Your task to perform on an android device: Show the shopping cart on target. Search for bose soundlink on target, select the first entry, add it to the cart, then select checkout. Image 0: 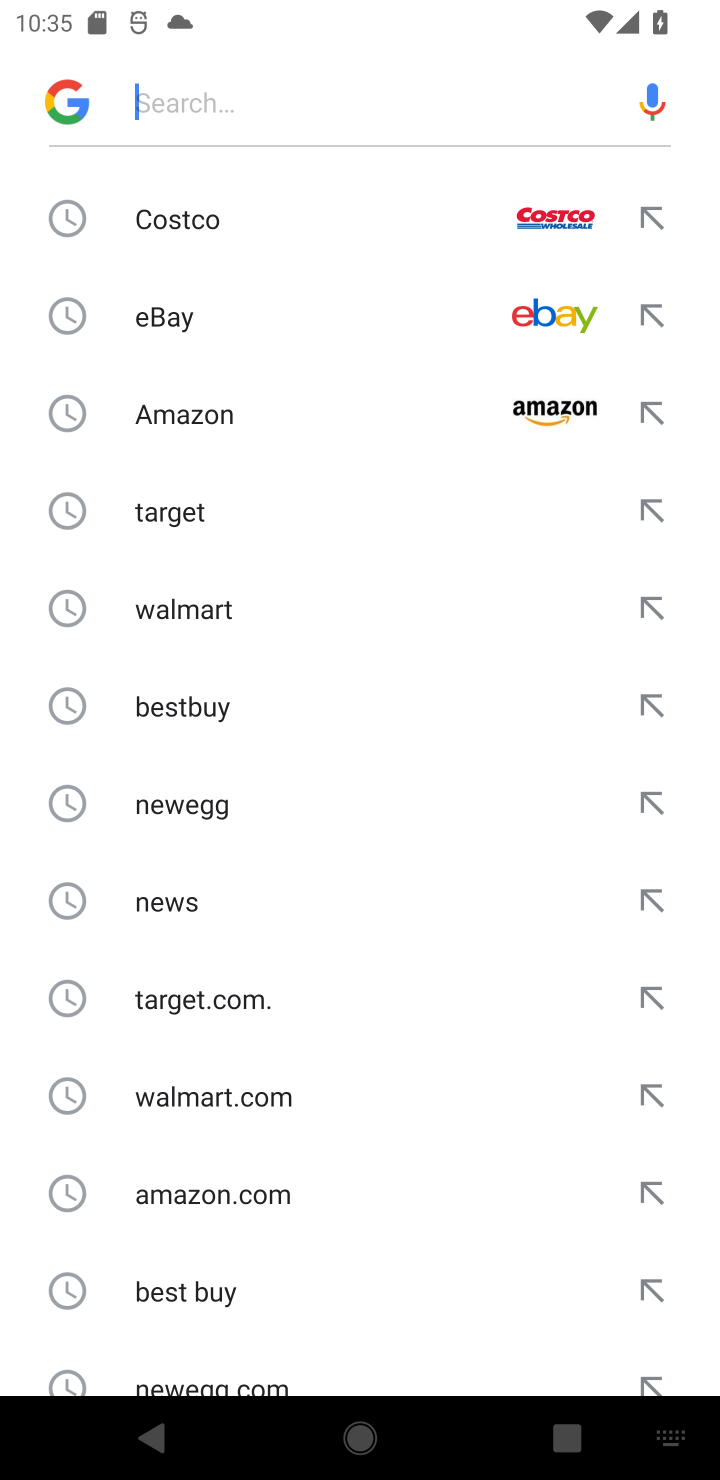
Step 0: press home button
Your task to perform on an android device: Show the shopping cart on target. Search for bose soundlink on target, select the first entry, add it to the cart, then select checkout. Image 1: 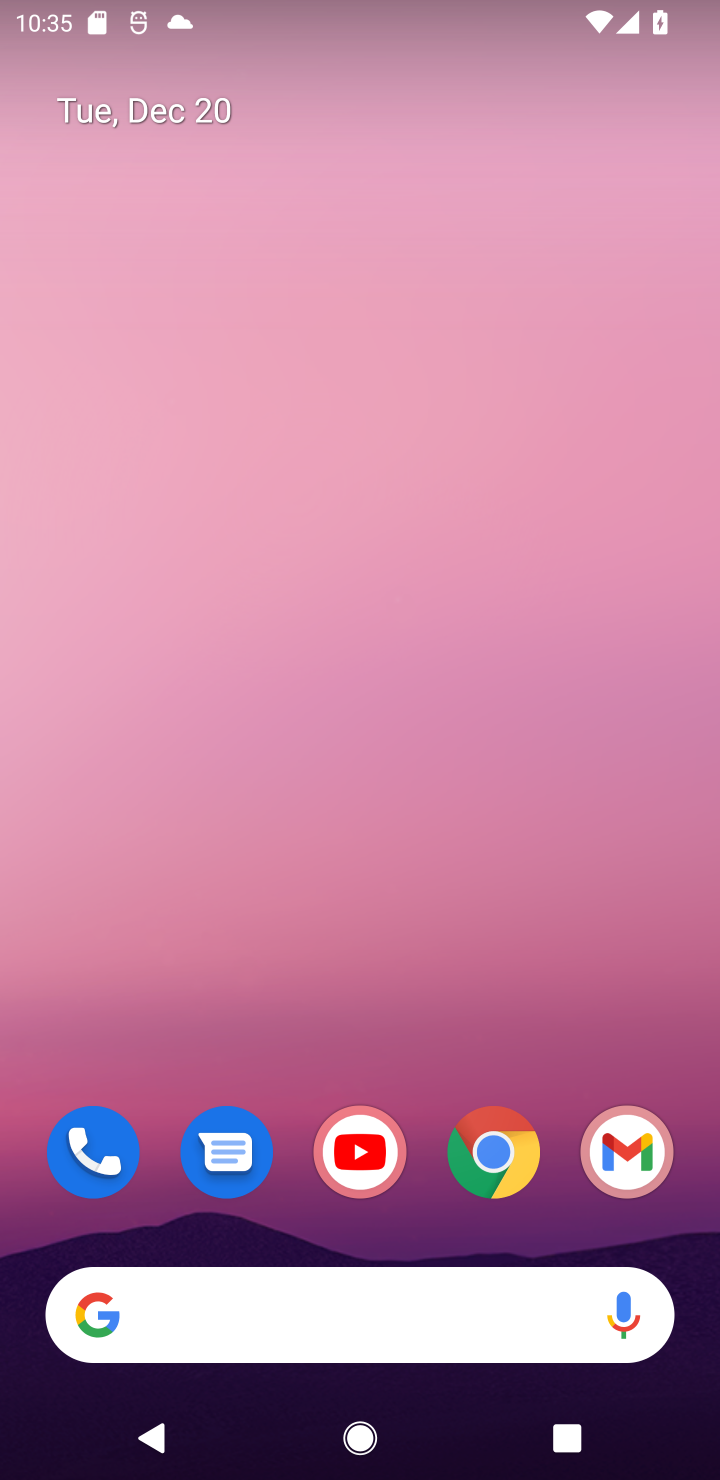
Step 1: click (473, 1146)
Your task to perform on an android device: Show the shopping cart on target. Search for bose soundlink on target, select the first entry, add it to the cart, then select checkout. Image 2: 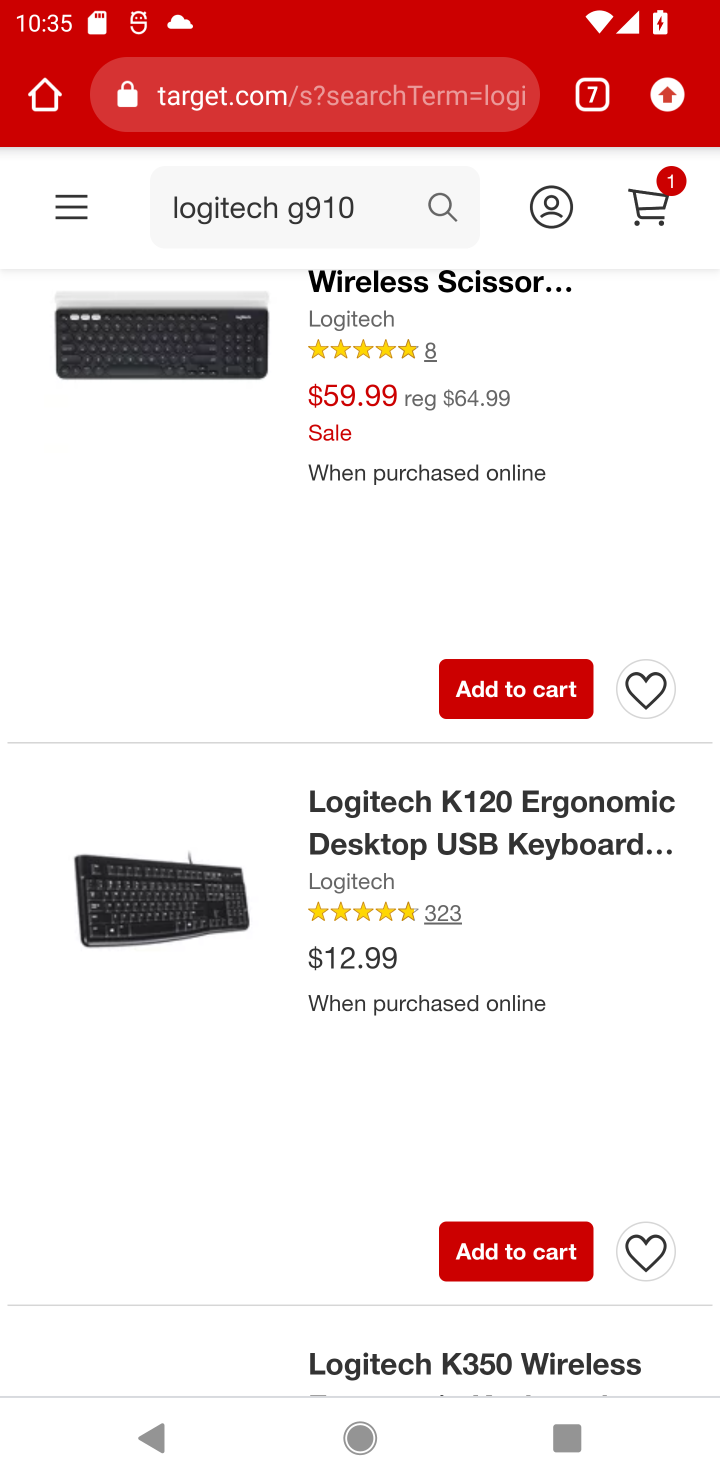
Step 2: click (373, 212)
Your task to perform on an android device: Show the shopping cart on target. Search for bose soundlink on target, select the first entry, add it to the cart, then select checkout. Image 3: 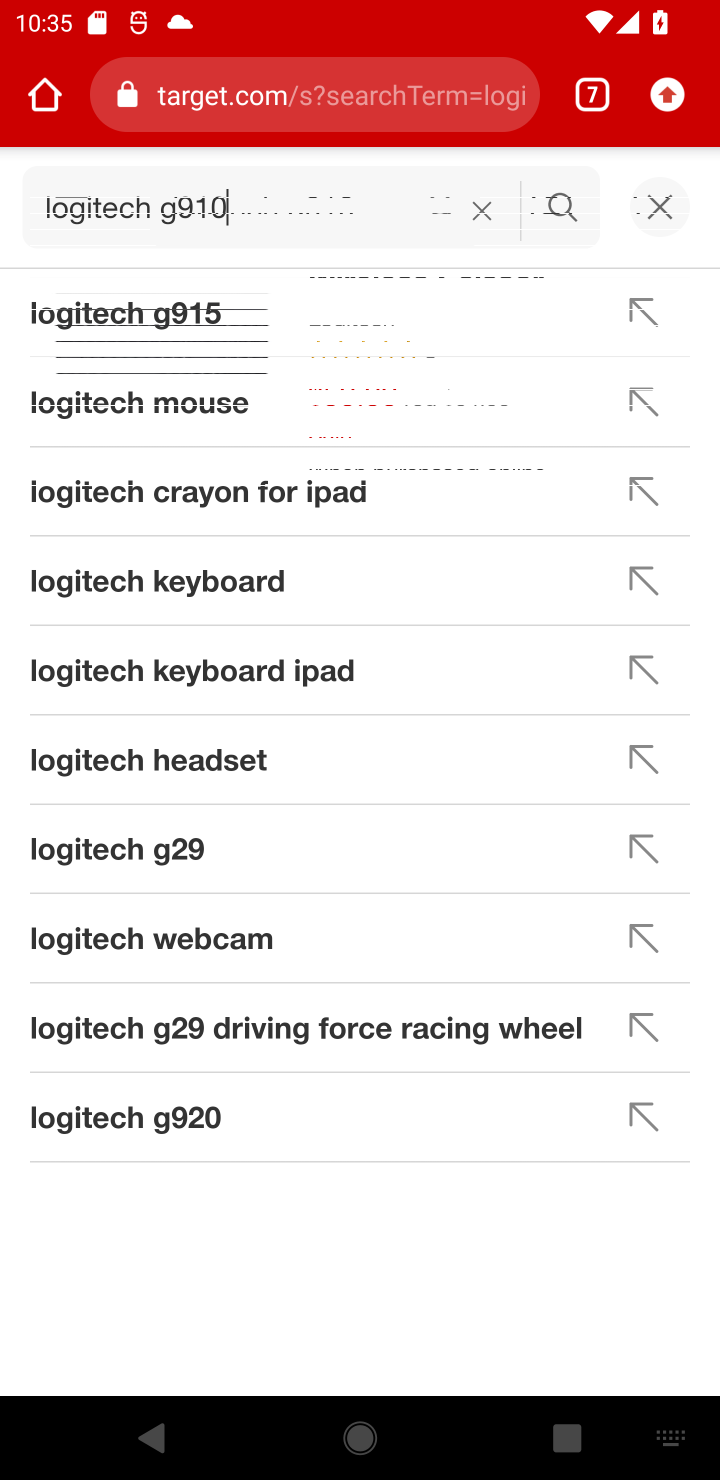
Step 3: click (475, 209)
Your task to perform on an android device: Show the shopping cart on target. Search for bose soundlink on target, select the first entry, add it to the cart, then select checkout. Image 4: 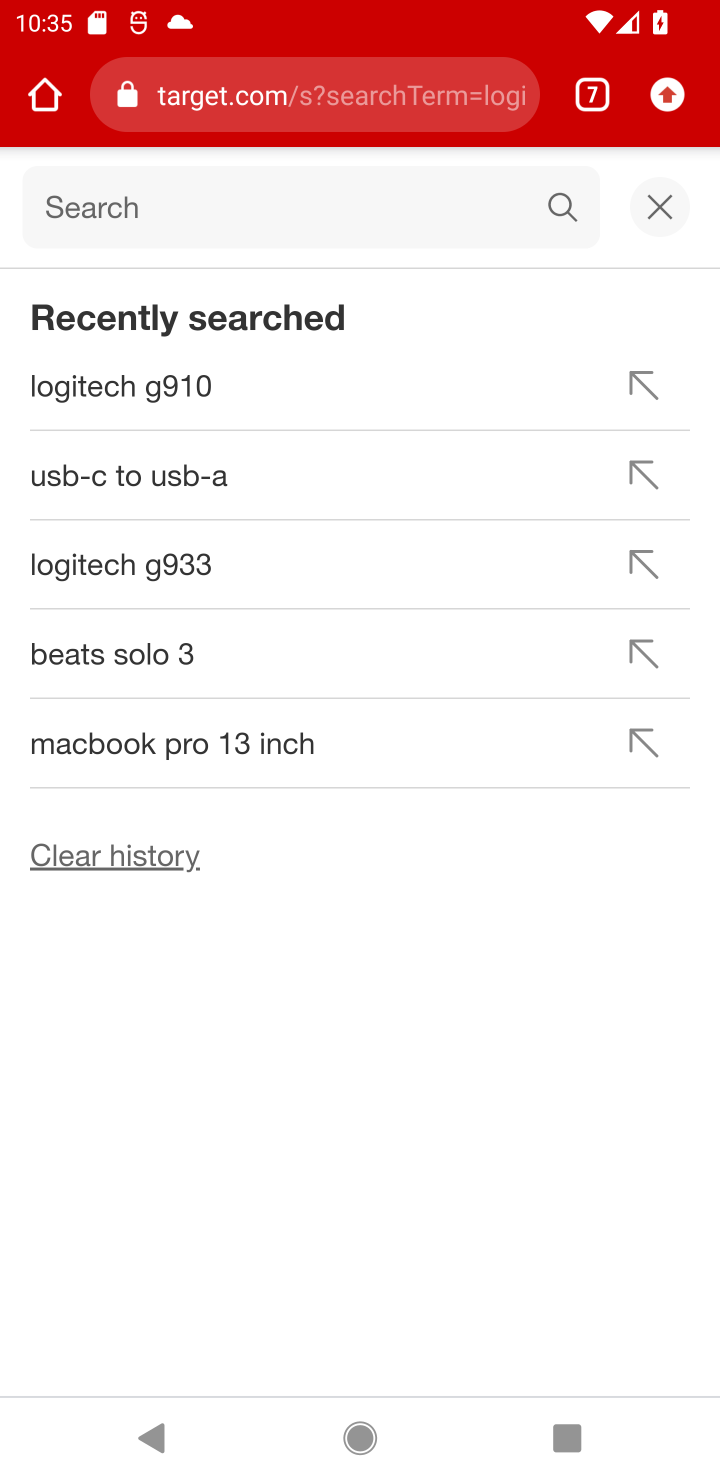
Step 4: click (171, 202)
Your task to perform on an android device: Show the shopping cart on target. Search for bose soundlink on target, select the first entry, add it to the cart, then select checkout. Image 5: 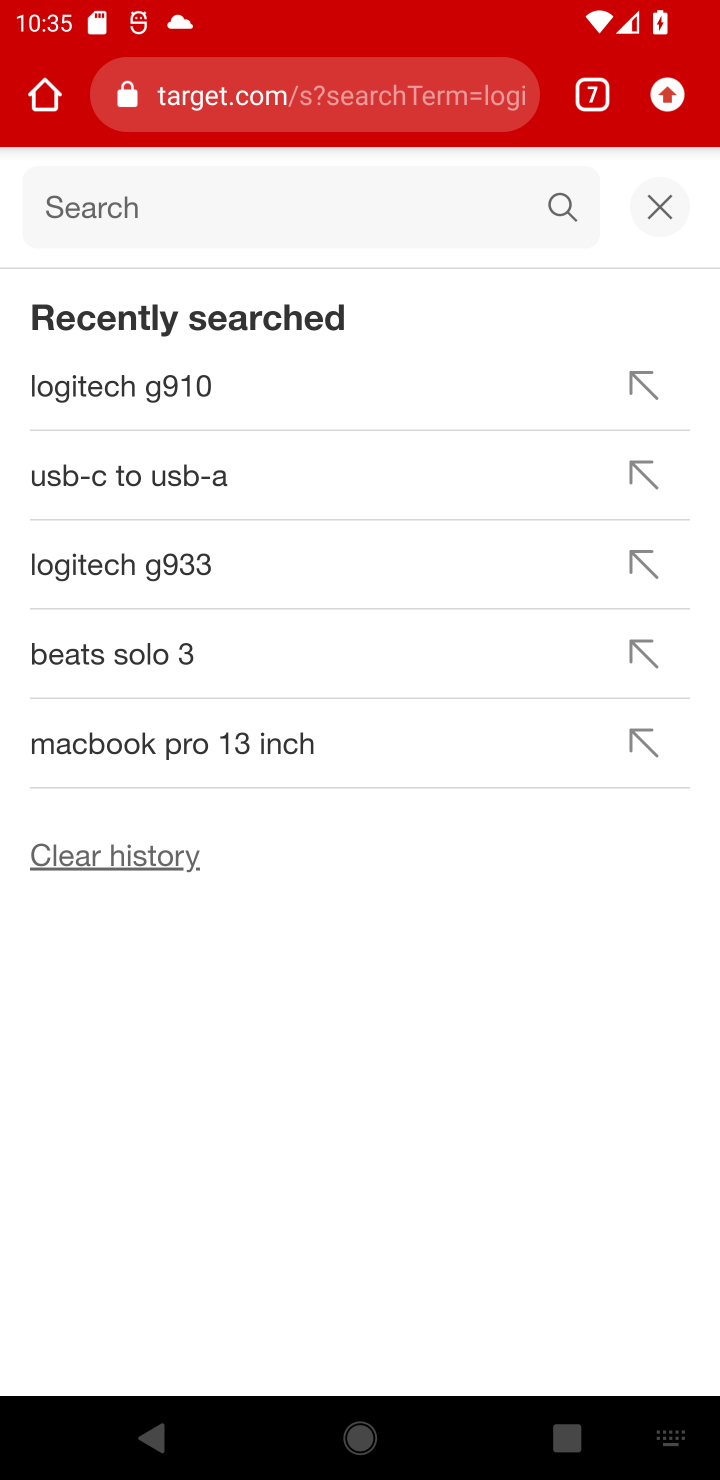
Step 5: type "bose soundlink"
Your task to perform on an android device: Show the shopping cart on target. Search for bose soundlink on target, select the first entry, add it to the cart, then select checkout. Image 6: 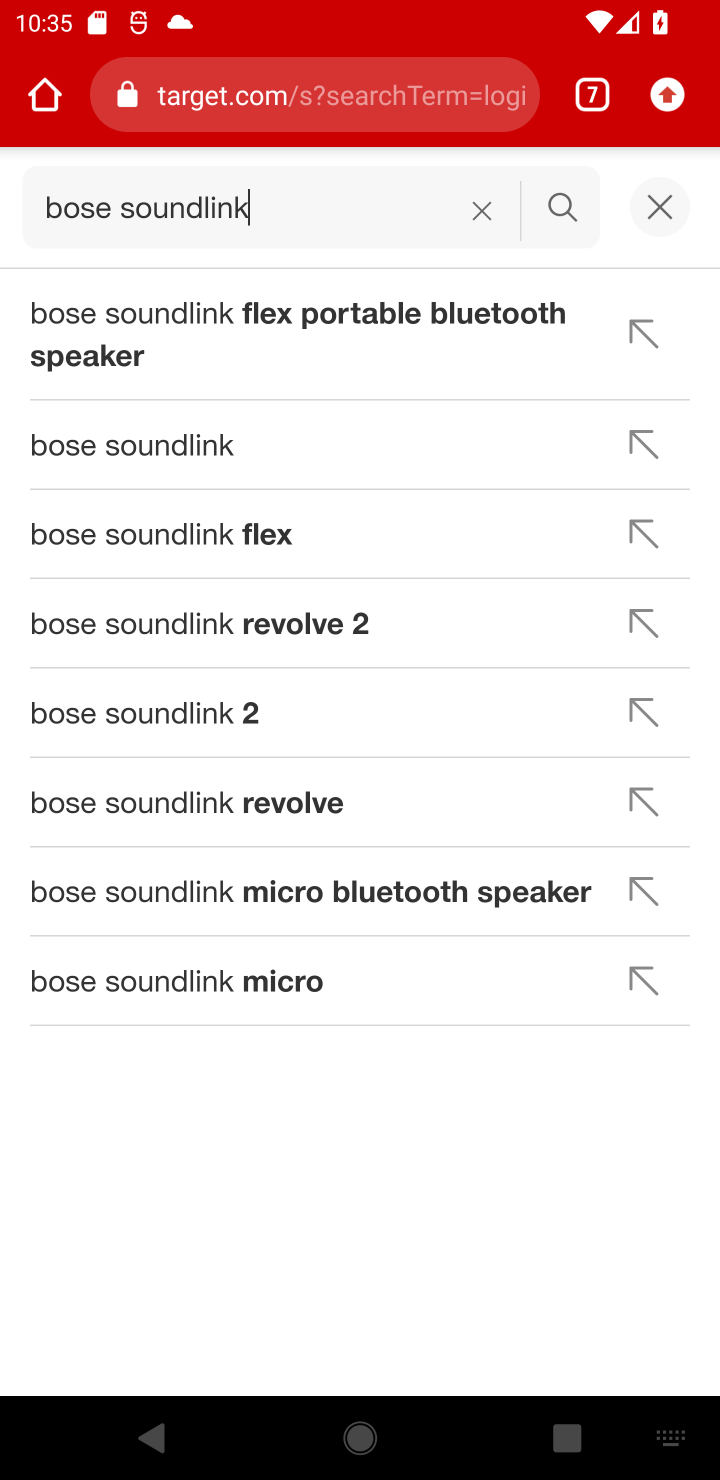
Step 6: click (176, 457)
Your task to perform on an android device: Show the shopping cart on target. Search for bose soundlink on target, select the first entry, add it to the cart, then select checkout. Image 7: 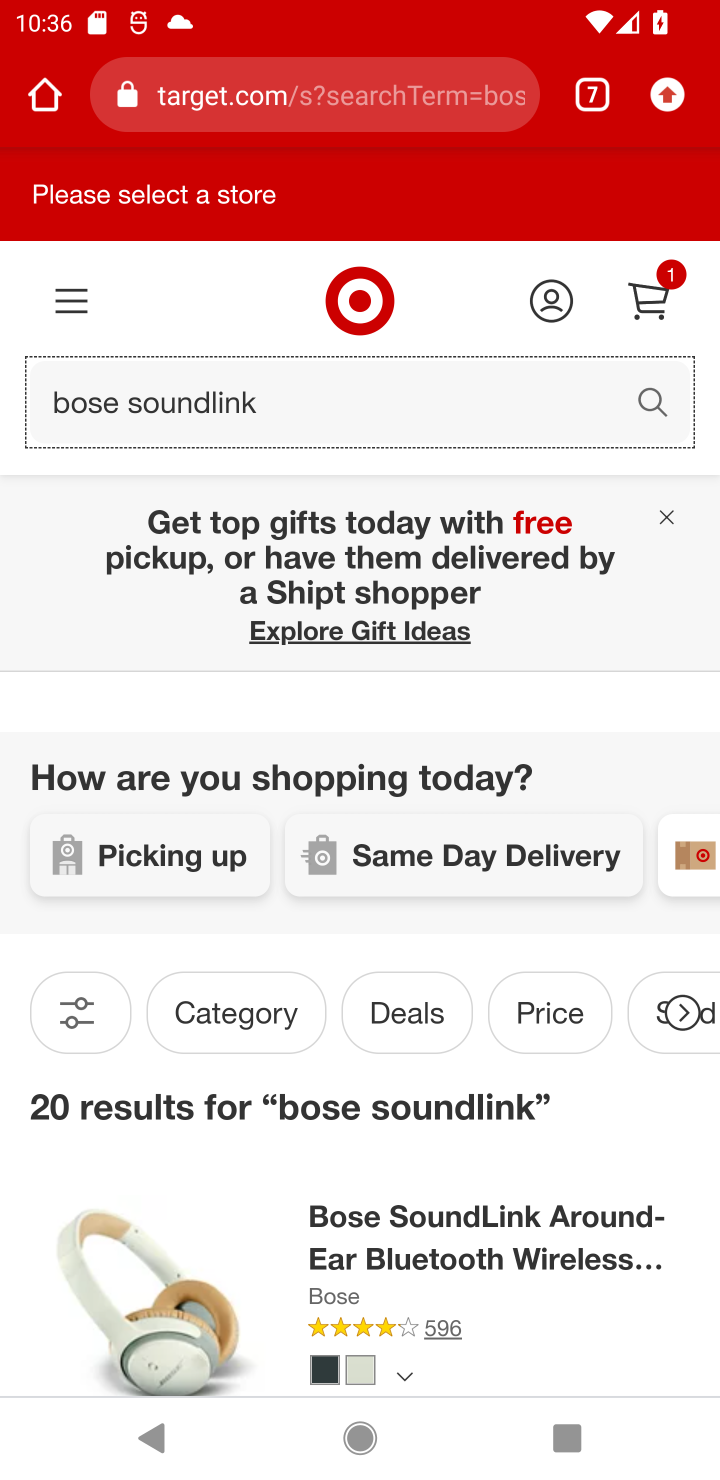
Step 7: drag from (594, 1351) to (708, 623)
Your task to perform on an android device: Show the shopping cart on target. Search for bose soundlink on target, select the first entry, add it to the cart, then select checkout. Image 8: 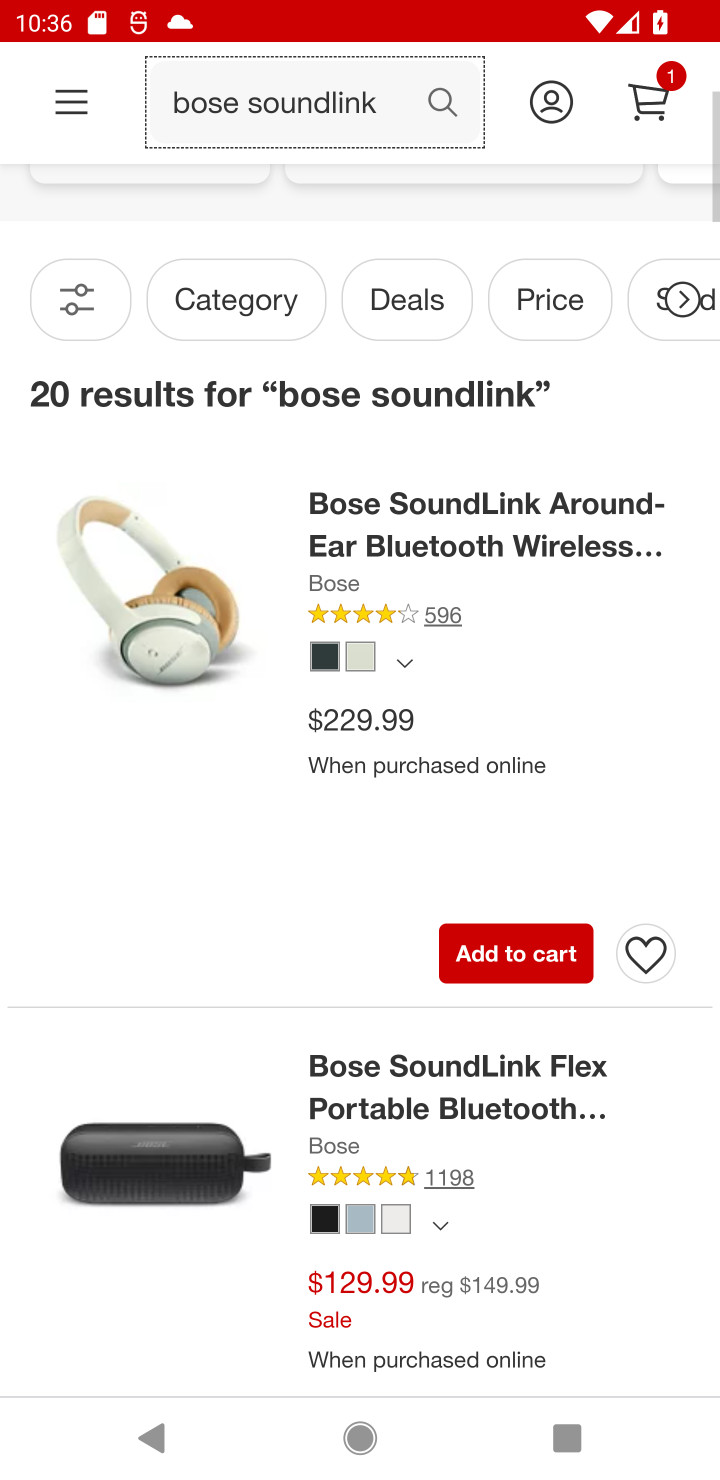
Step 8: drag from (411, 1229) to (510, 738)
Your task to perform on an android device: Show the shopping cart on target. Search for bose soundlink on target, select the first entry, add it to the cart, then select checkout. Image 9: 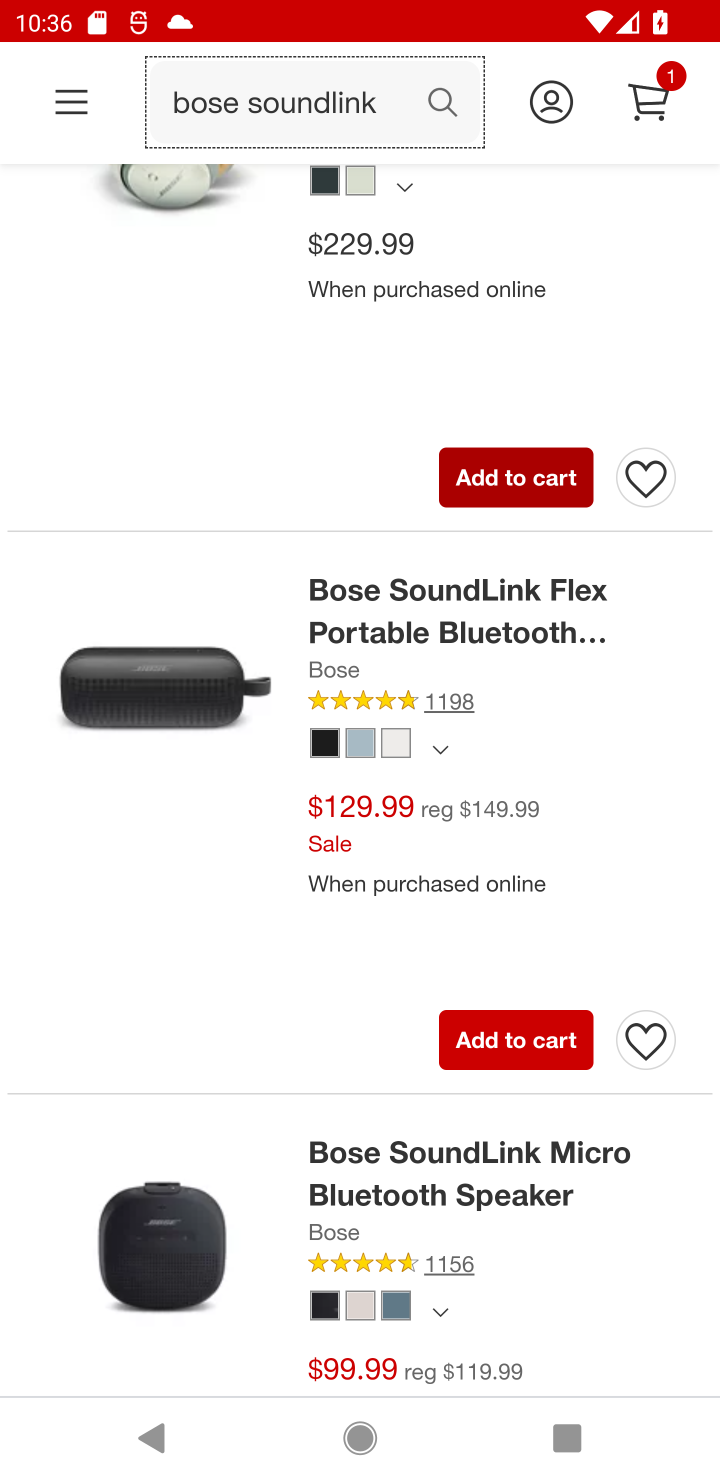
Step 9: click (471, 1055)
Your task to perform on an android device: Show the shopping cart on target. Search for bose soundlink on target, select the first entry, add it to the cart, then select checkout. Image 10: 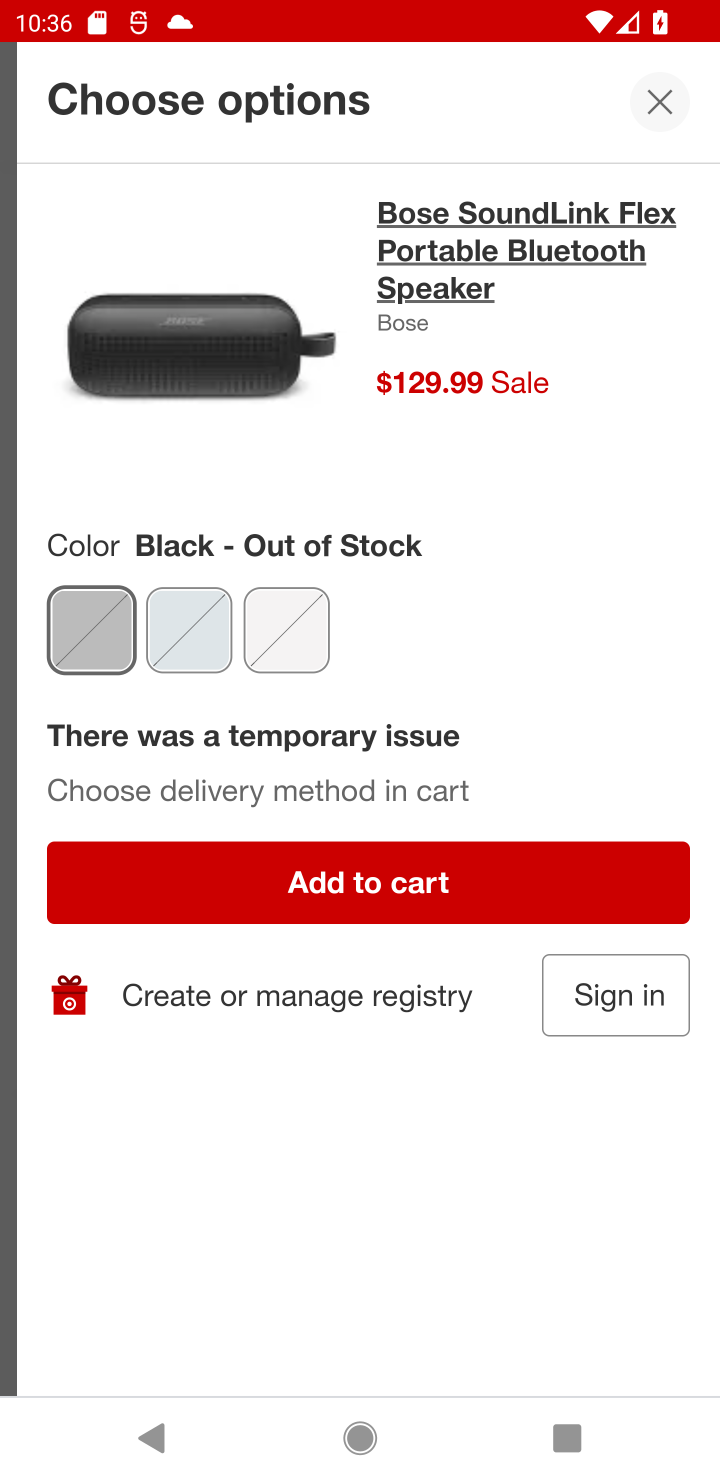
Step 10: click (361, 898)
Your task to perform on an android device: Show the shopping cart on target. Search for bose soundlink on target, select the first entry, add it to the cart, then select checkout. Image 11: 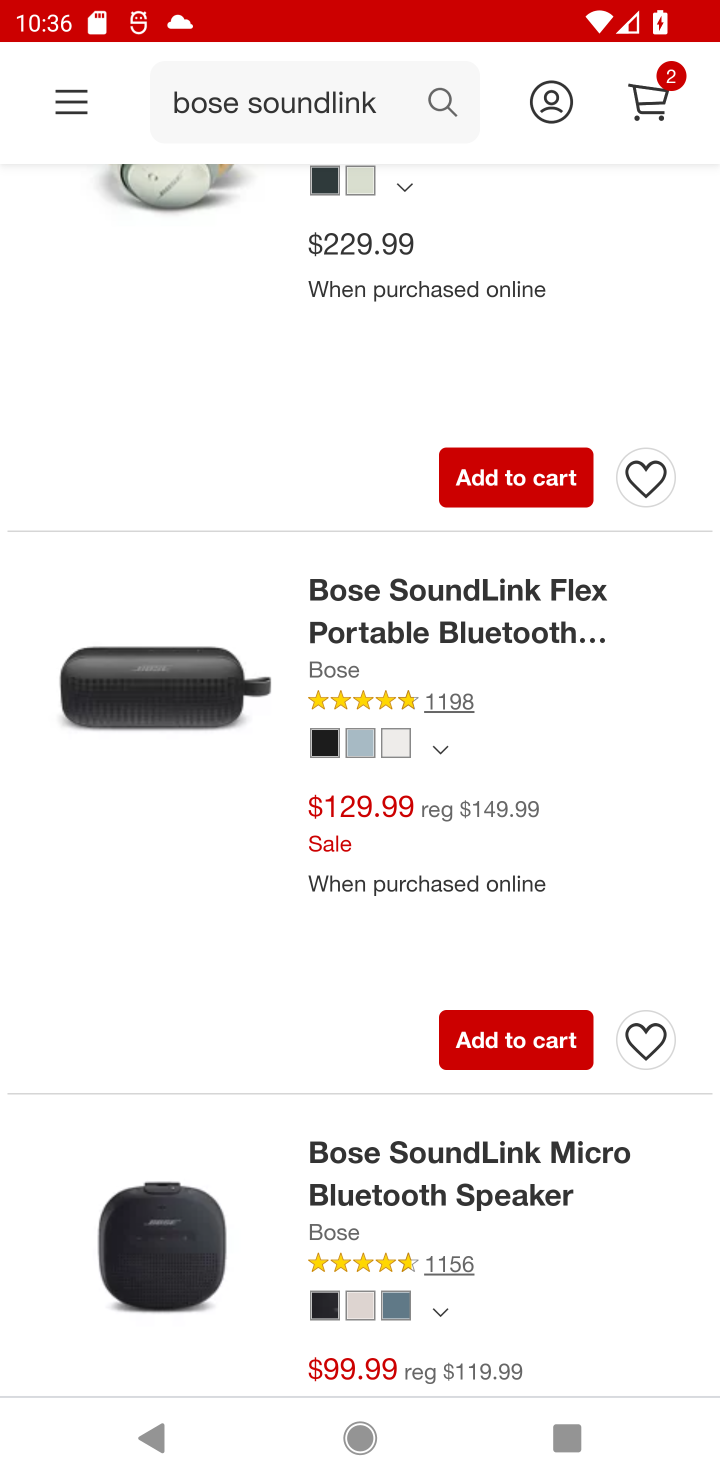
Step 11: task complete